Your task to perform on an android device: Go to Wikipedia Image 0: 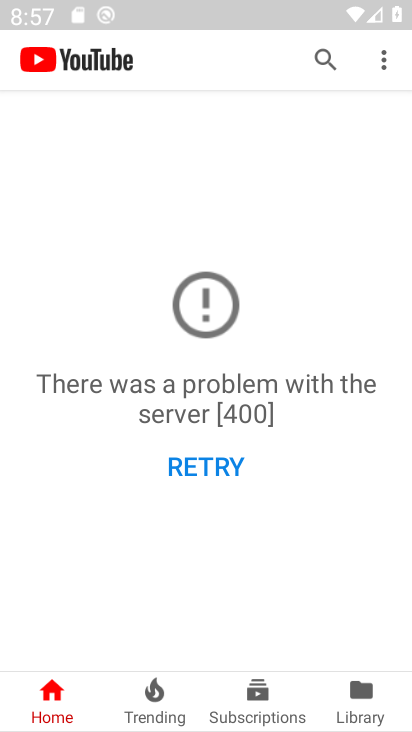
Step 0: press home button
Your task to perform on an android device: Go to Wikipedia Image 1: 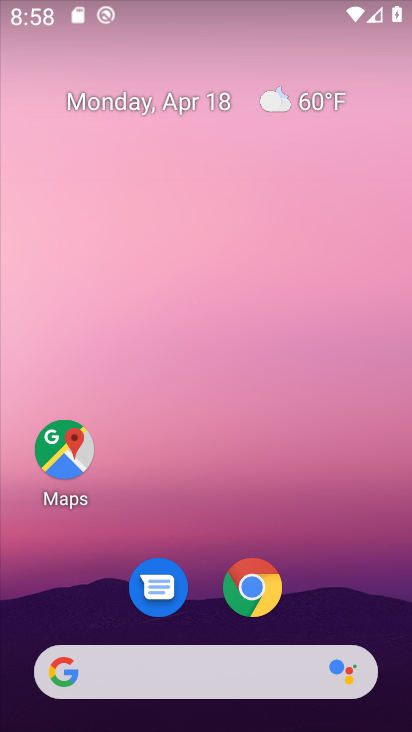
Step 1: click (275, 589)
Your task to perform on an android device: Go to Wikipedia Image 2: 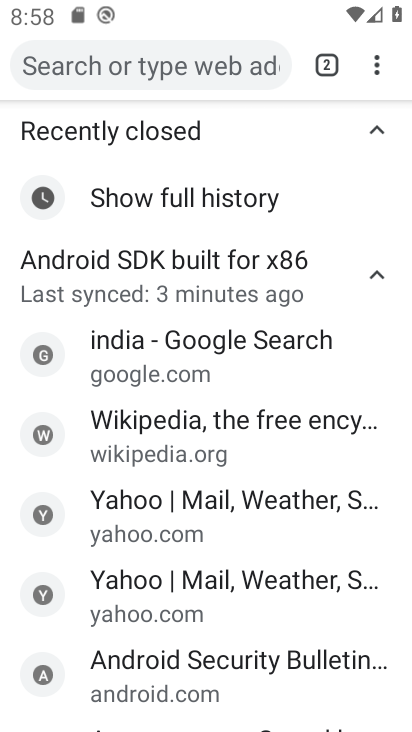
Step 2: click (224, 62)
Your task to perform on an android device: Go to Wikipedia Image 3: 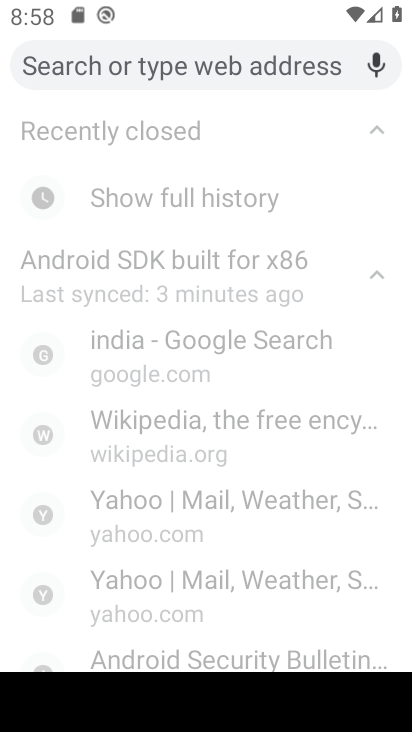
Step 3: type "wikipedia"
Your task to perform on an android device: Go to Wikipedia Image 4: 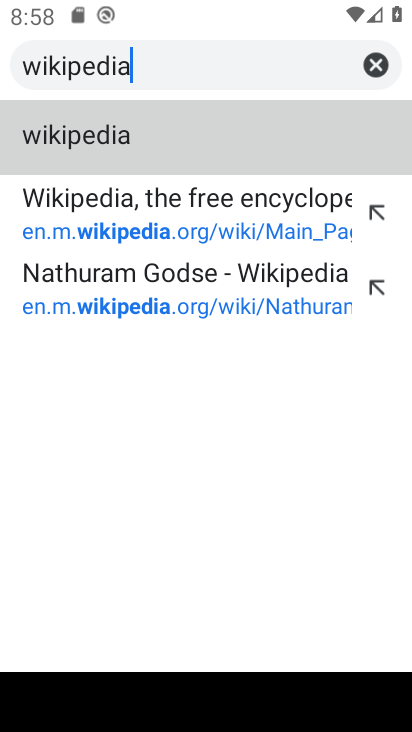
Step 4: click (327, 210)
Your task to perform on an android device: Go to Wikipedia Image 5: 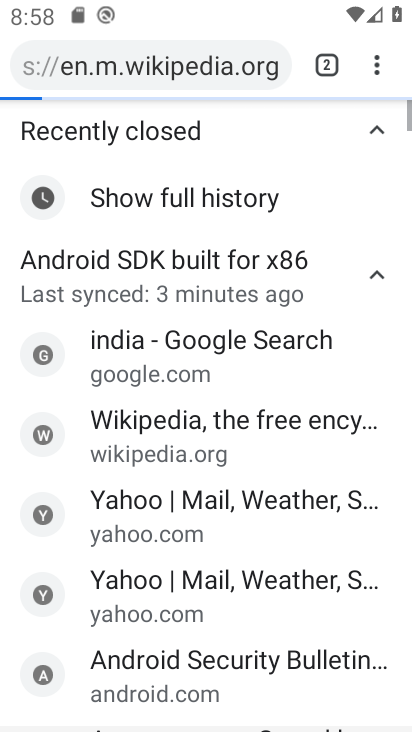
Step 5: task complete